Your task to perform on an android device: Open Google Image 0: 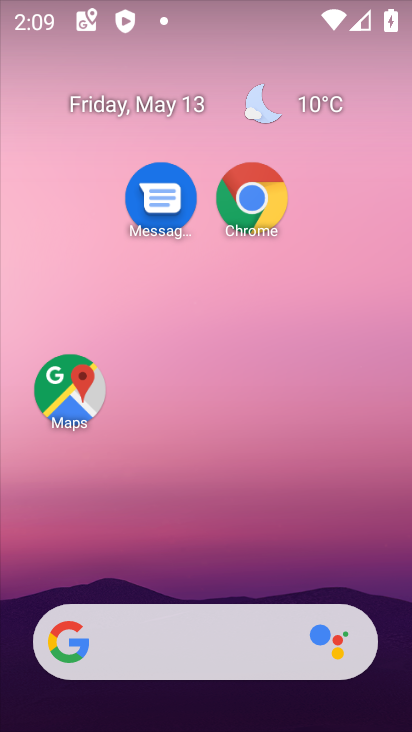
Step 0: drag from (179, 602) to (123, 13)
Your task to perform on an android device: Open Google Image 1: 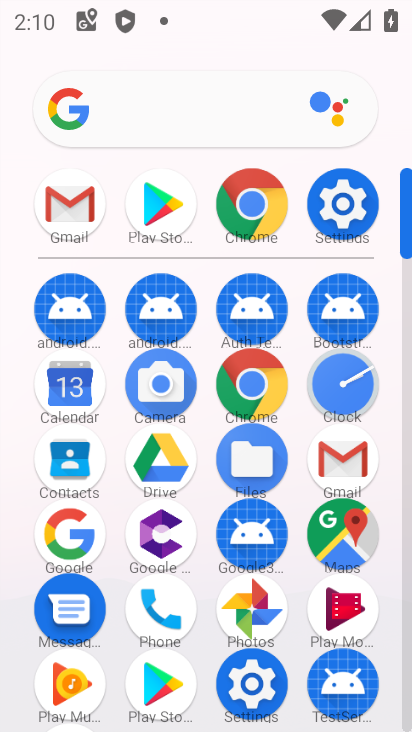
Step 1: click (62, 533)
Your task to perform on an android device: Open Google Image 2: 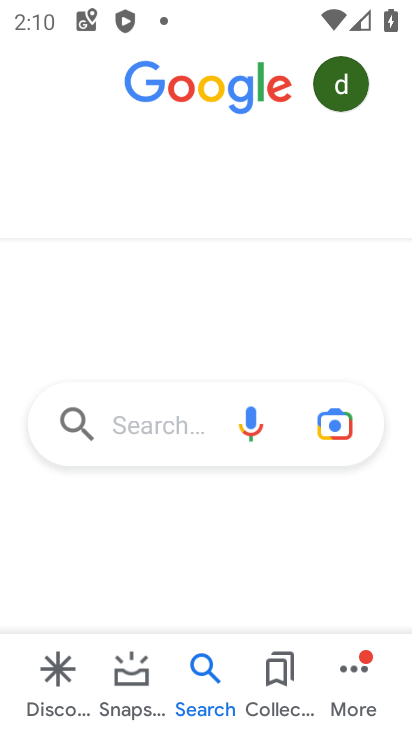
Step 2: task complete